Your task to perform on an android device: turn off improve location accuracy Image 0: 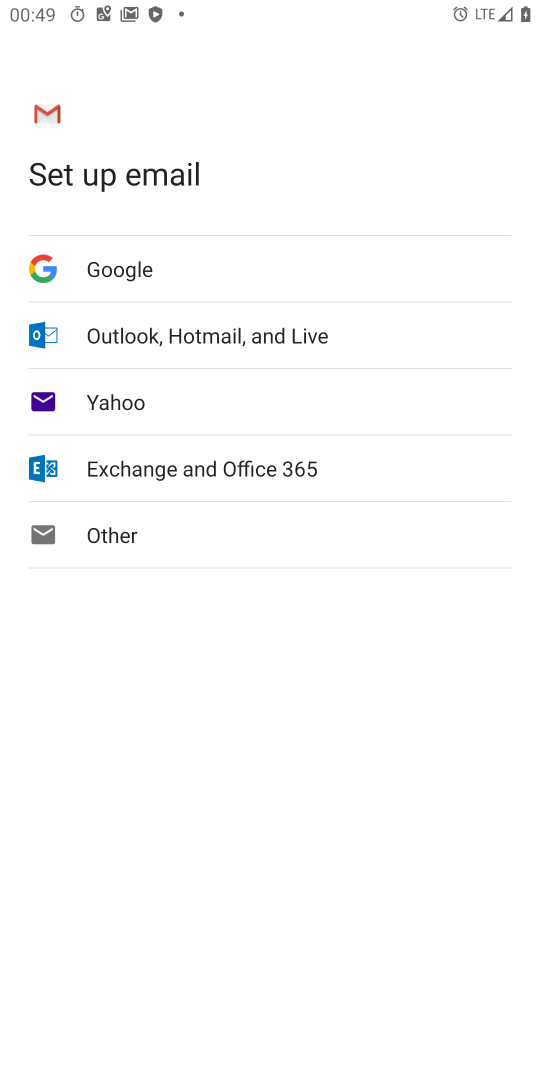
Step 0: press home button
Your task to perform on an android device: turn off improve location accuracy Image 1: 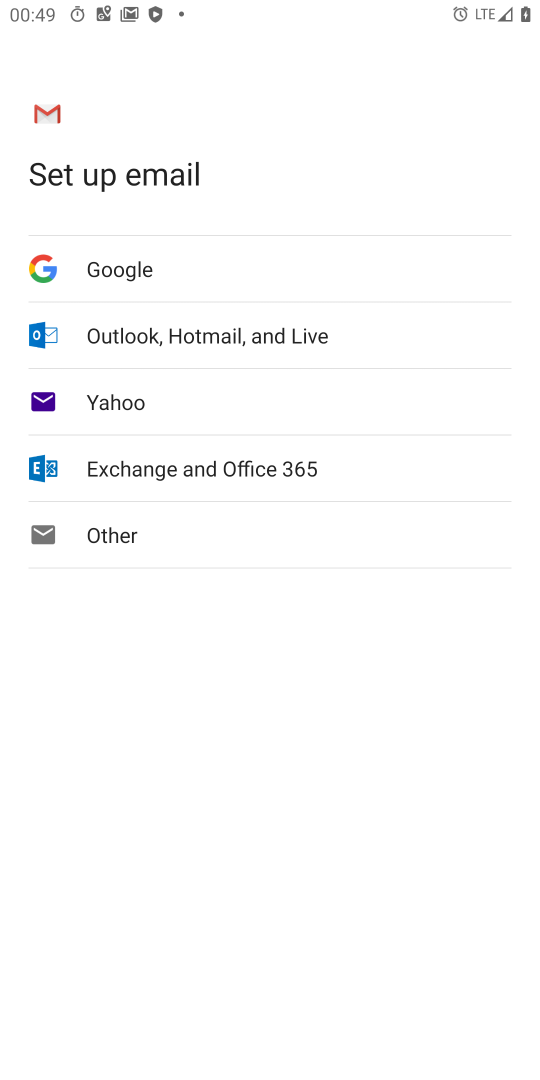
Step 1: press home button
Your task to perform on an android device: turn off improve location accuracy Image 2: 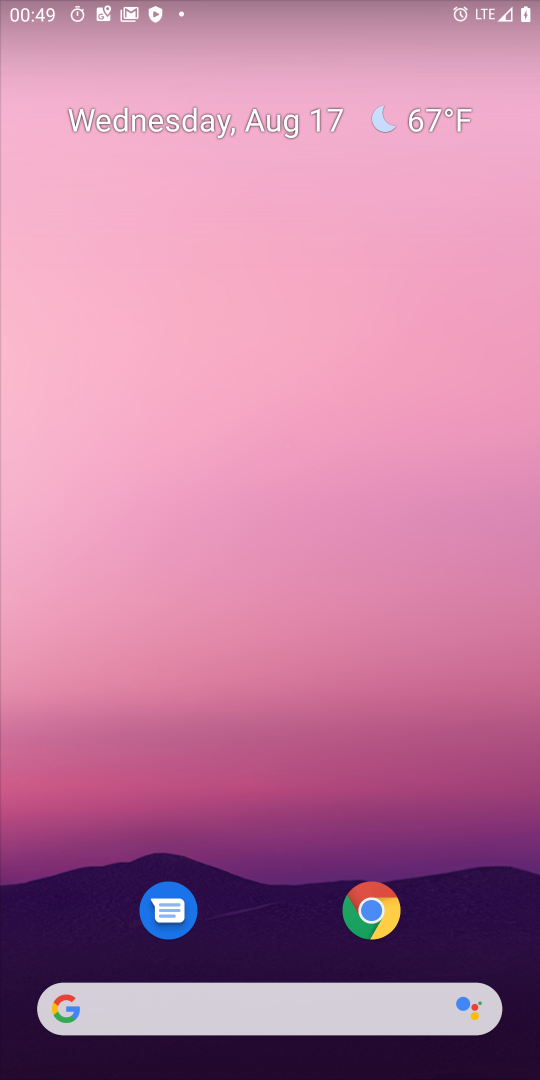
Step 2: drag from (255, 842) to (315, 63)
Your task to perform on an android device: turn off improve location accuracy Image 3: 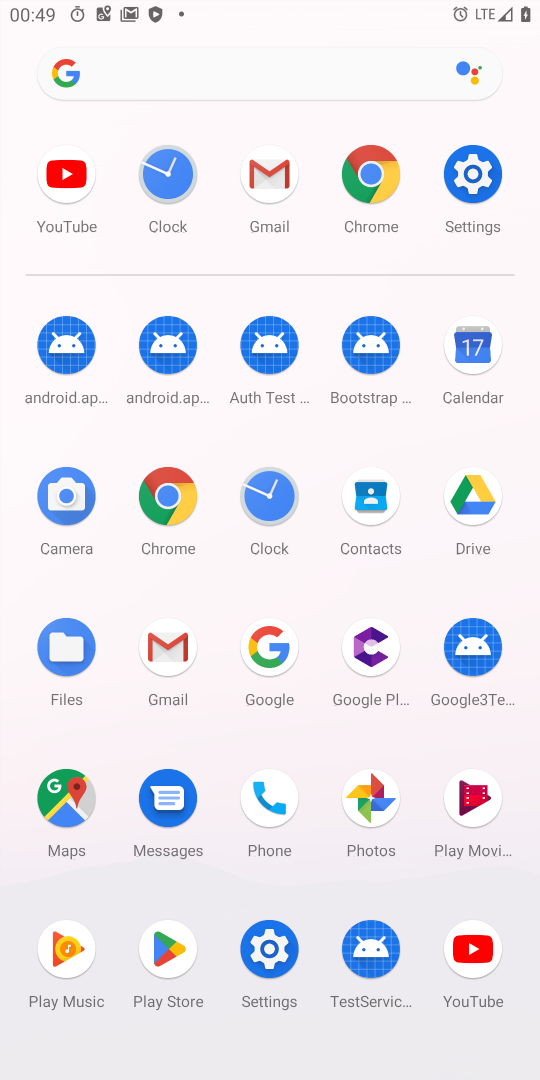
Step 3: click (269, 946)
Your task to perform on an android device: turn off improve location accuracy Image 4: 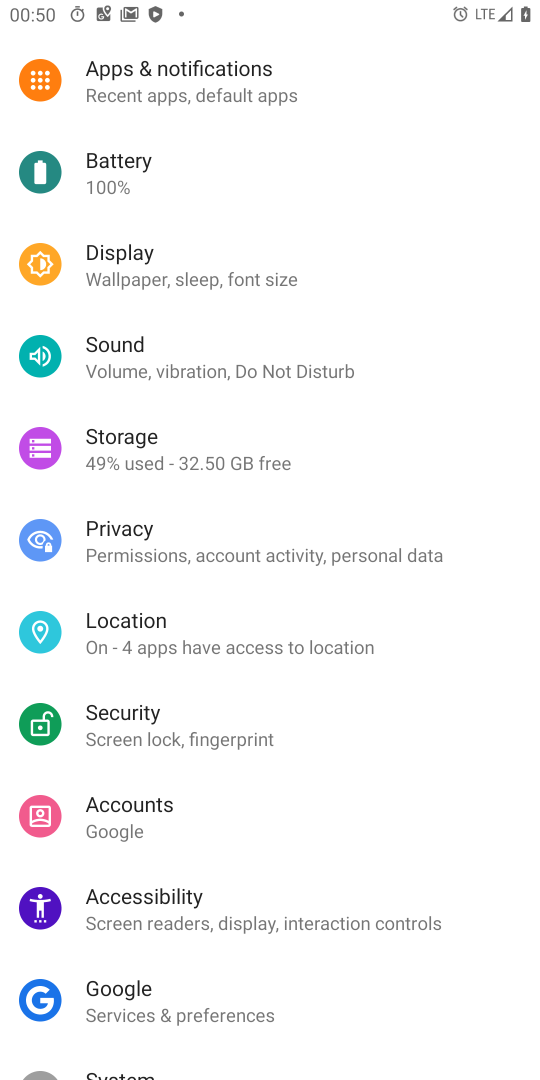
Step 4: click (174, 626)
Your task to perform on an android device: turn off improve location accuracy Image 5: 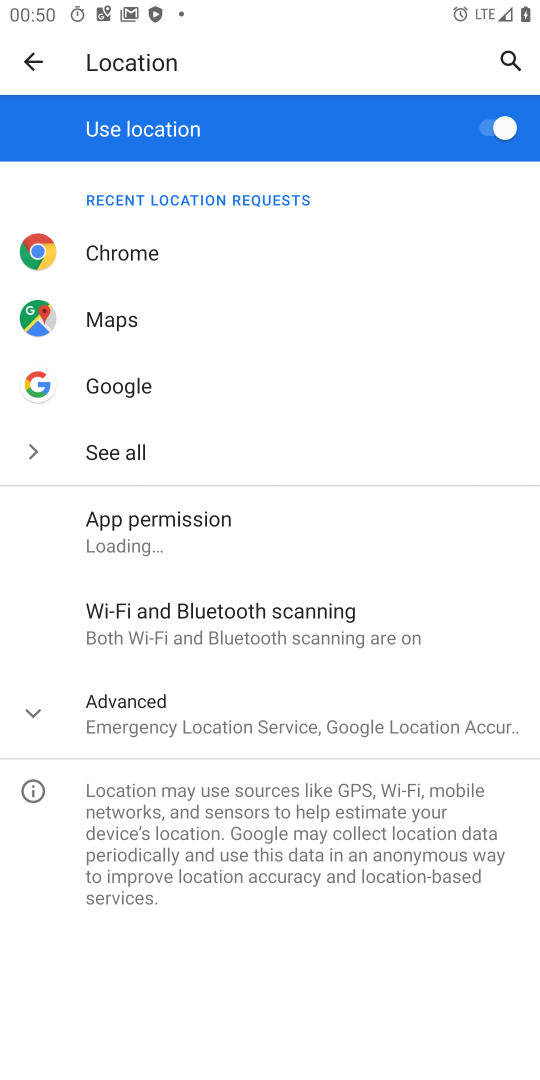
Step 5: click (193, 713)
Your task to perform on an android device: turn off improve location accuracy Image 6: 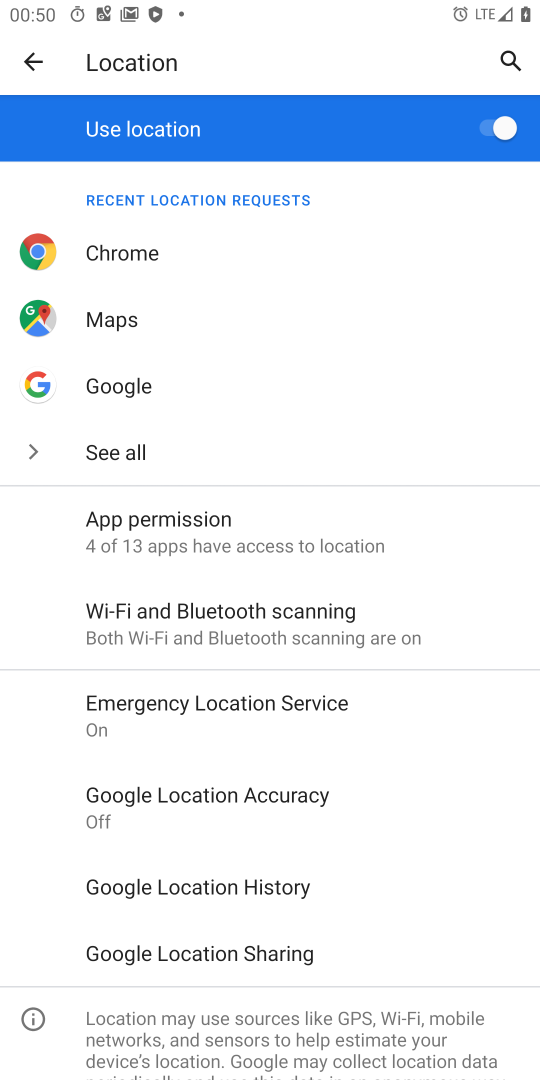
Step 6: click (252, 820)
Your task to perform on an android device: turn off improve location accuracy Image 7: 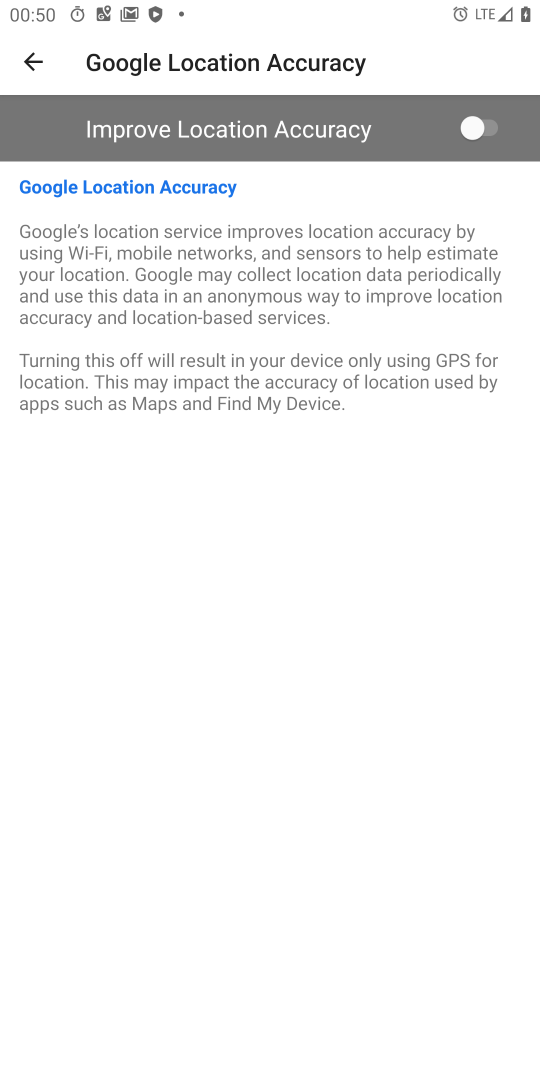
Step 7: task complete